Your task to perform on an android device: open app "Venmo" (install if not already installed) Image 0: 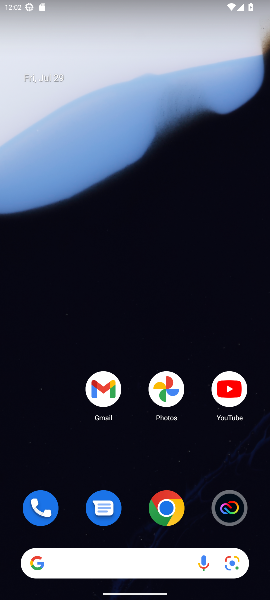
Step 0: drag from (113, 556) to (74, 74)
Your task to perform on an android device: open app "Venmo" (install if not already installed) Image 1: 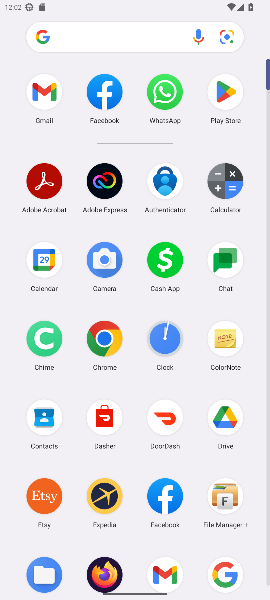
Step 1: click (227, 88)
Your task to perform on an android device: open app "Venmo" (install if not already installed) Image 2: 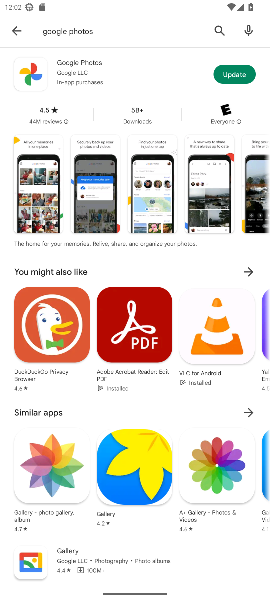
Step 2: click (218, 28)
Your task to perform on an android device: open app "Venmo" (install if not already installed) Image 3: 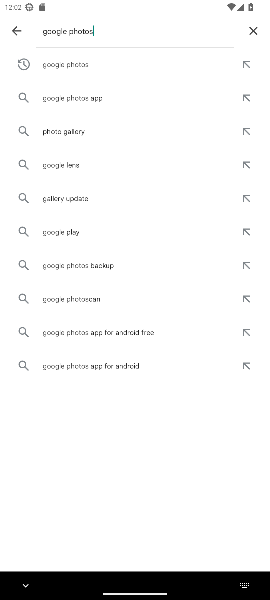
Step 3: click (251, 29)
Your task to perform on an android device: open app "Venmo" (install if not already installed) Image 4: 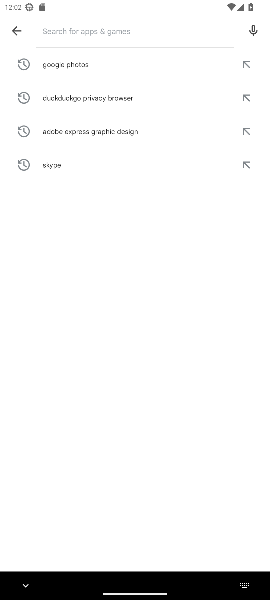
Step 4: type "venmo"
Your task to perform on an android device: open app "Venmo" (install if not already installed) Image 5: 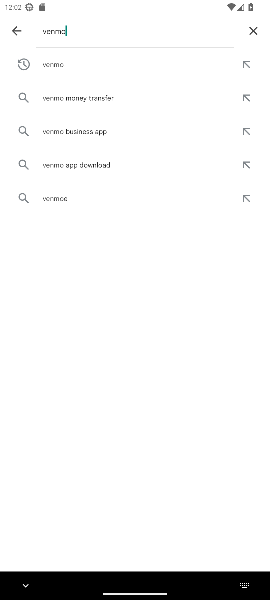
Step 5: click (66, 61)
Your task to perform on an android device: open app "Venmo" (install if not already installed) Image 6: 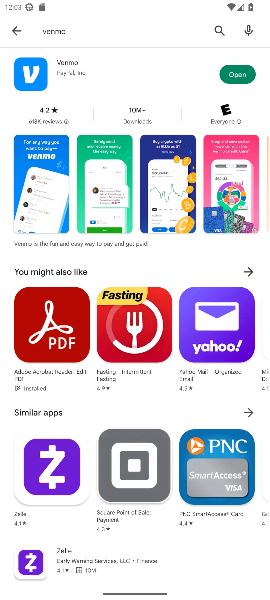
Step 6: click (250, 72)
Your task to perform on an android device: open app "Venmo" (install if not already installed) Image 7: 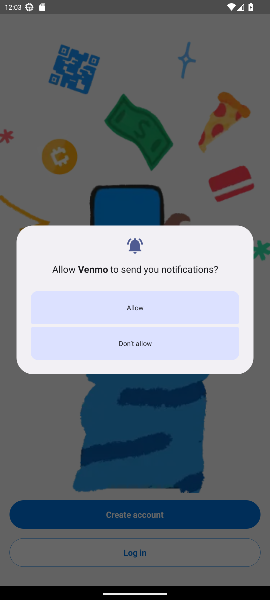
Step 7: task complete